Your task to perform on an android device: What is the news today? Image 0: 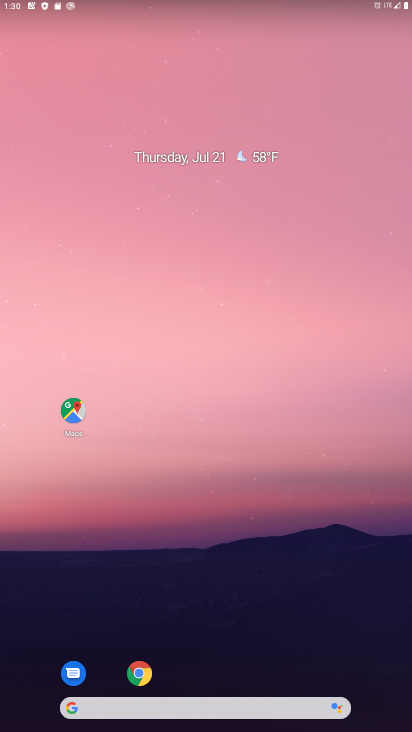
Step 0: drag from (245, 611) to (245, 156)
Your task to perform on an android device: What is the news today? Image 1: 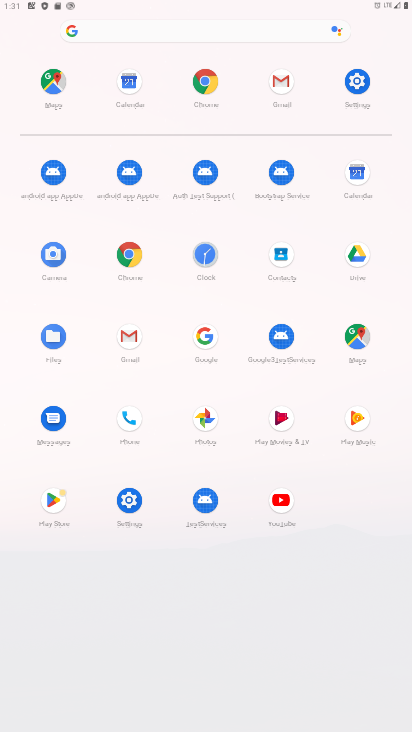
Step 1: click (135, 254)
Your task to perform on an android device: What is the news today? Image 2: 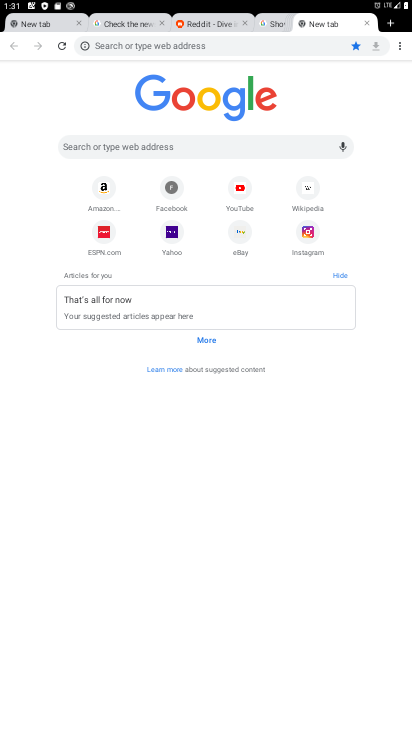
Step 2: click (280, 135)
Your task to perform on an android device: What is the news today? Image 3: 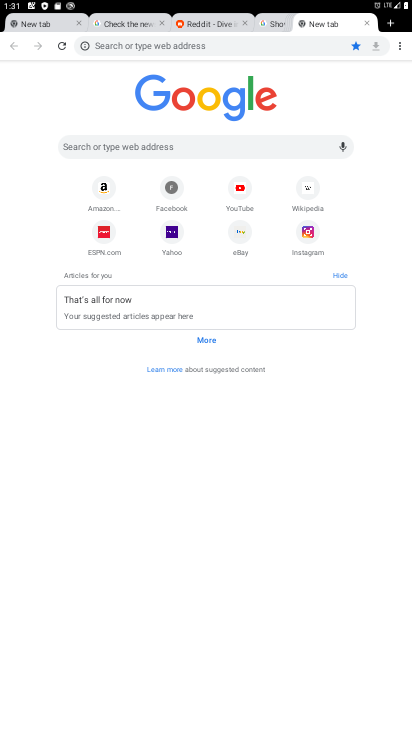
Step 3: type "What is the news today "
Your task to perform on an android device: What is the news today? Image 4: 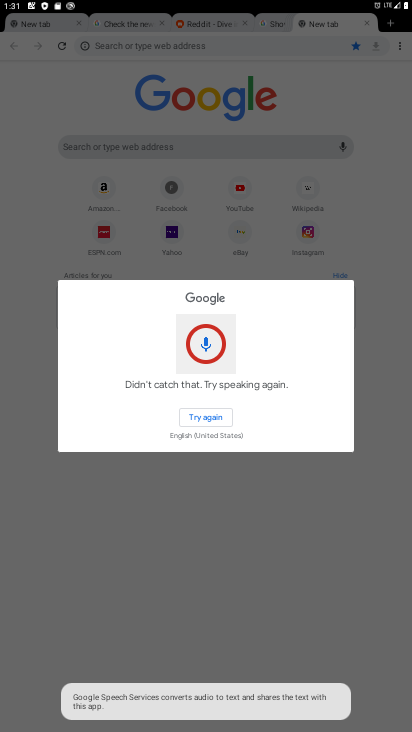
Step 4: click (161, 554)
Your task to perform on an android device: What is the news today? Image 5: 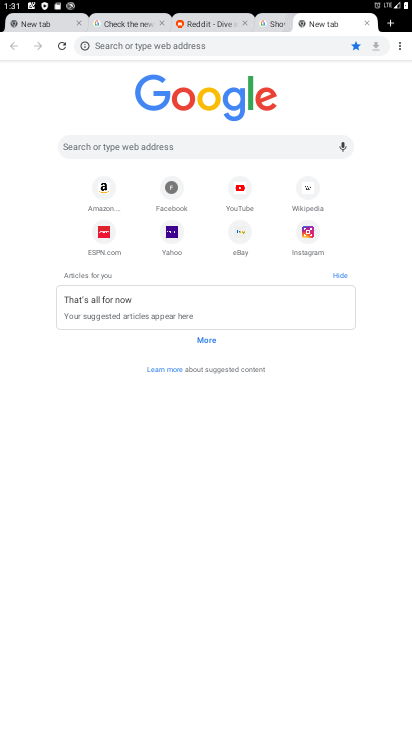
Step 5: click (166, 142)
Your task to perform on an android device: What is the news today? Image 6: 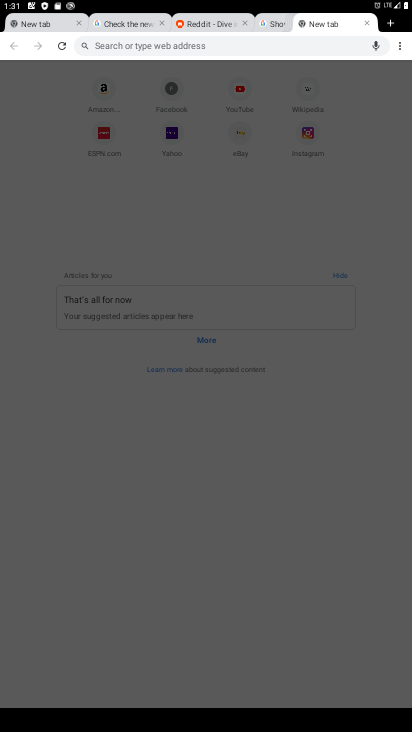
Step 6: type "What is the news today "
Your task to perform on an android device: What is the news today? Image 7: 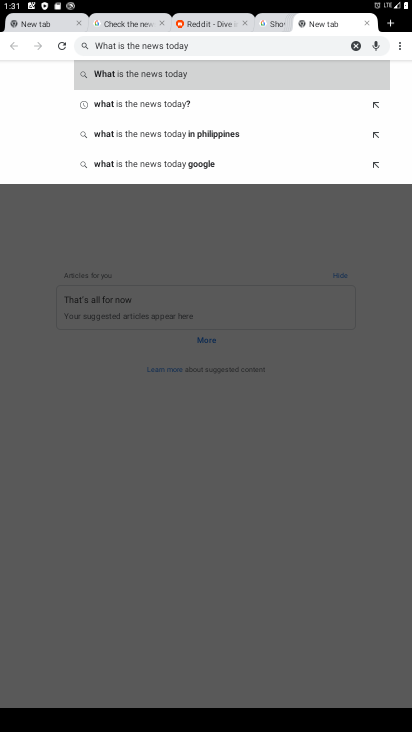
Step 7: click (149, 66)
Your task to perform on an android device: What is the news today? Image 8: 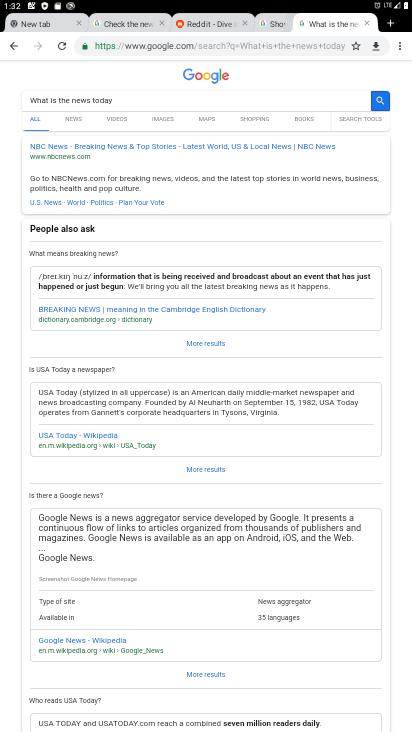
Step 8: task complete